Your task to perform on an android device: turn notification dots off Image 0: 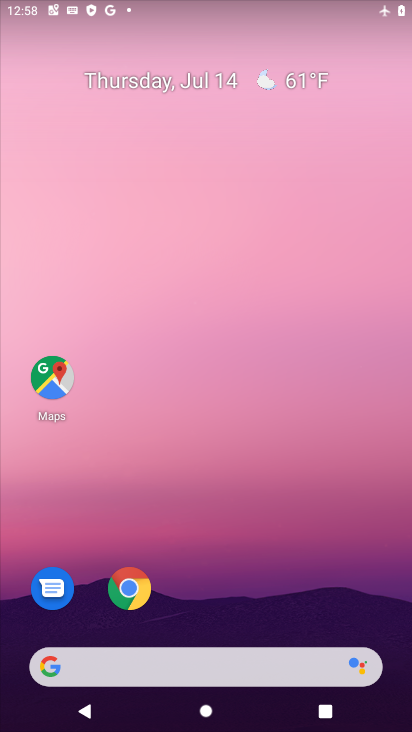
Step 0: drag from (202, 648) to (219, 106)
Your task to perform on an android device: turn notification dots off Image 1: 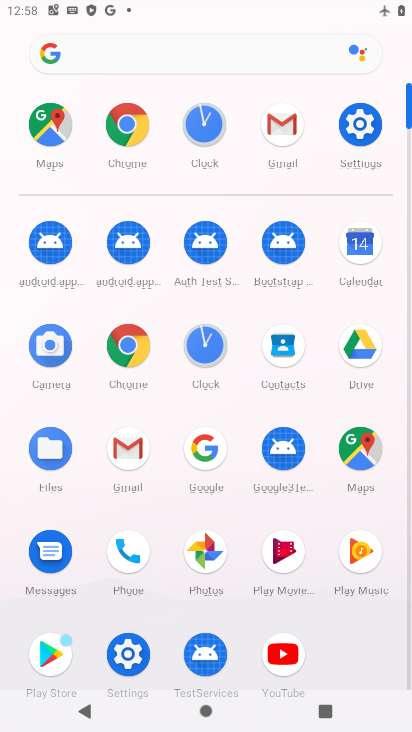
Step 1: click (122, 666)
Your task to perform on an android device: turn notification dots off Image 2: 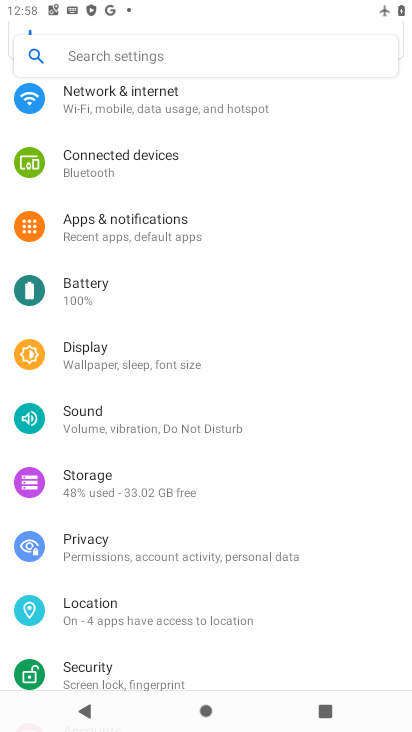
Step 2: click (154, 233)
Your task to perform on an android device: turn notification dots off Image 3: 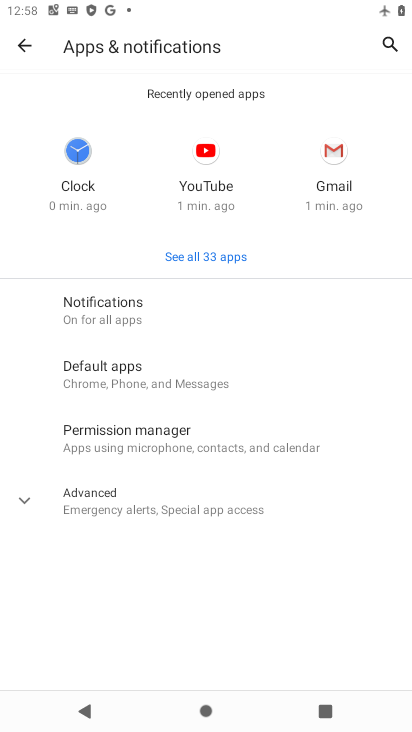
Step 3: click (117, 311)
Your task to perform on an android device: turn notification dots off Image 4: 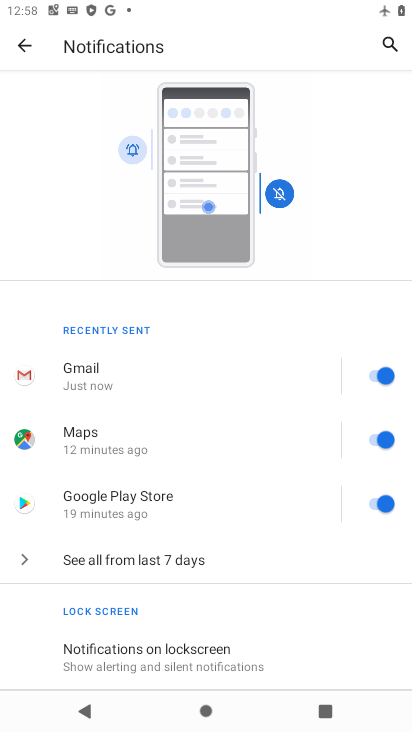
Step 4: drag from (157, 623) to (181, 296)
Your task to perform on an android device: turn notification dots off Image 5: 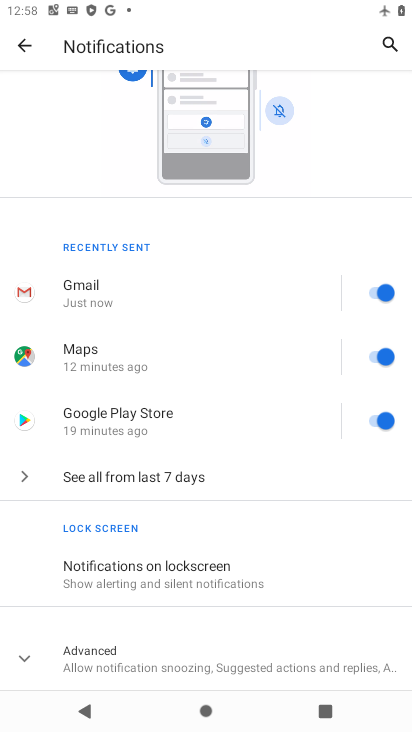
Step 5: click (134, 671)
Your task to perform on an android device: turn notification dots off Image 6: 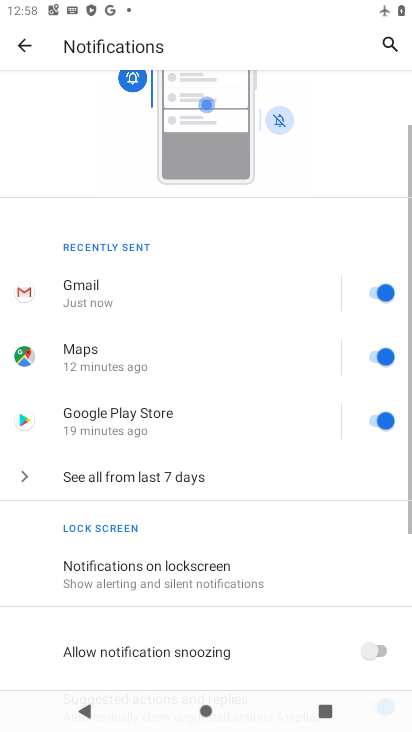
Step 6: drag from (186, 655) to (199, 242)
Your task to perform on an android device: turn notification dots off Image 7: 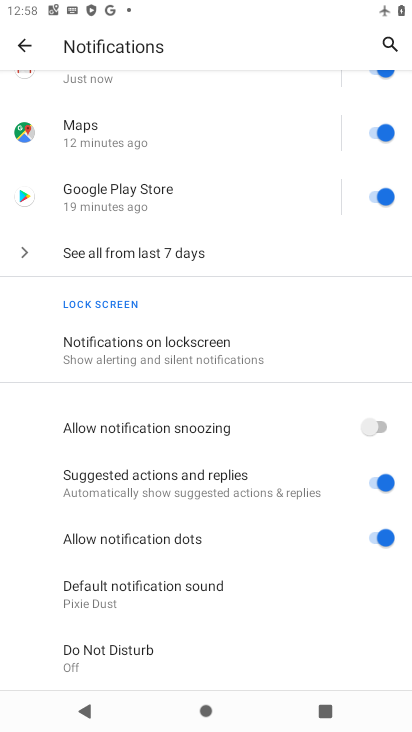
Step 7: click (364, 539)
Your task to perform on an android device: turn notification dots off Image 8: 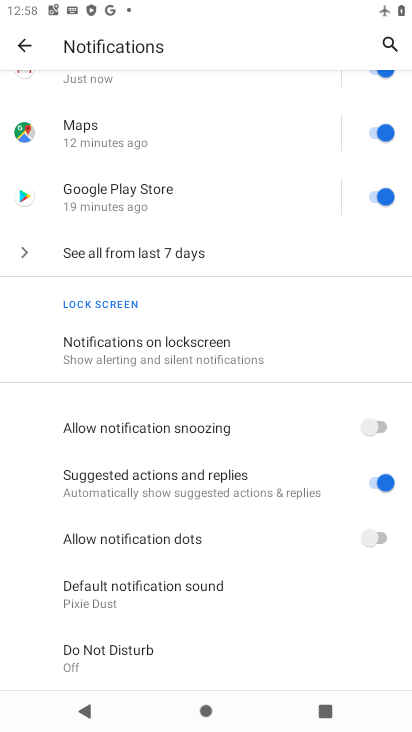
Step 8: task complete